Your task to perform on an android device: Play the last video I watched on Youtube Image 0: 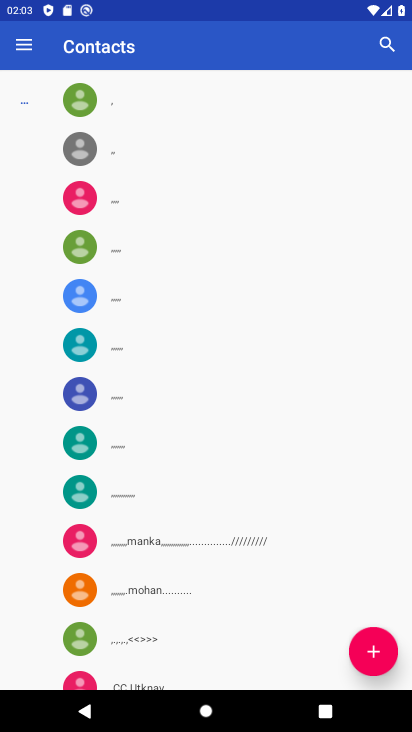
Step 0: press home button
Your task to perform on an android device: Play the last video I watched on Youtube Image 1: 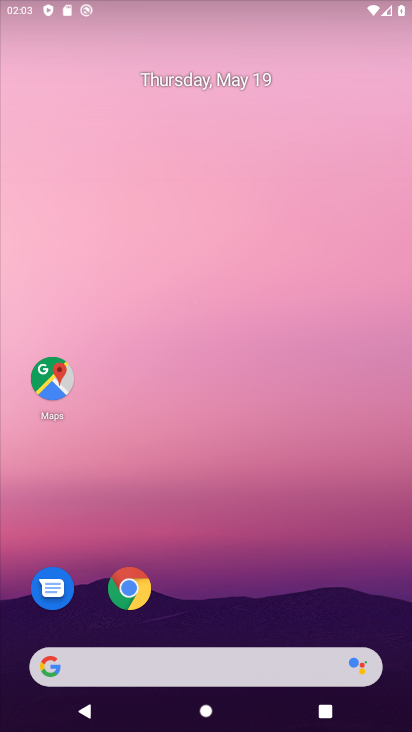
Step 1: drag from (267, 516) to (314, 133)
Your task to perform on an android device: Play the last video I watched on Youtube Image 2: 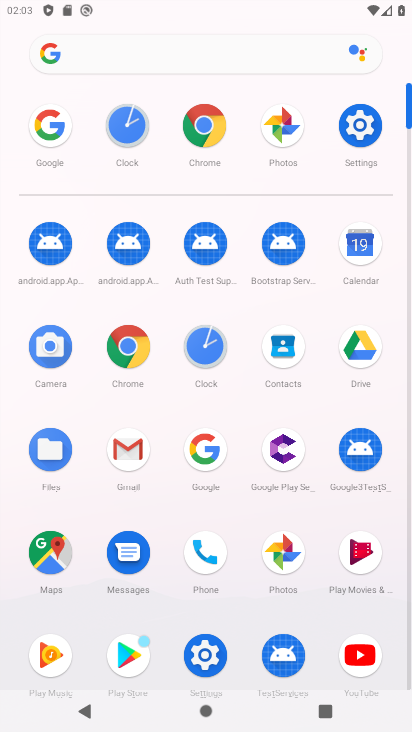
Step 2: click (362, 652)
Your task to perform on an android device: Play the last video I watched on Youtube Image 3: 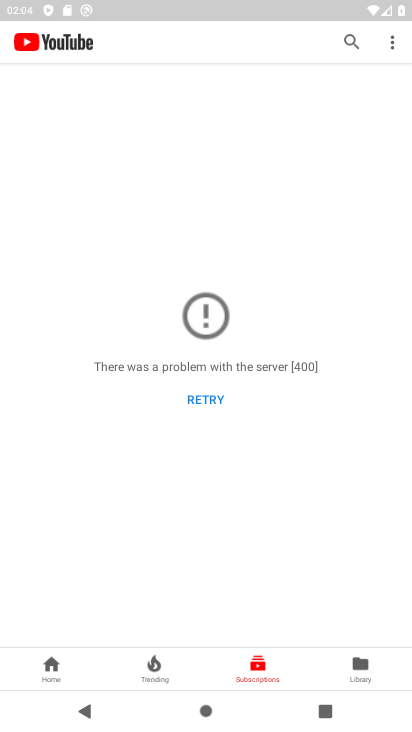
Step 3: click (351, 39)
Your task to perform on an android device: Play the last video I watched on Youtube Image 4: 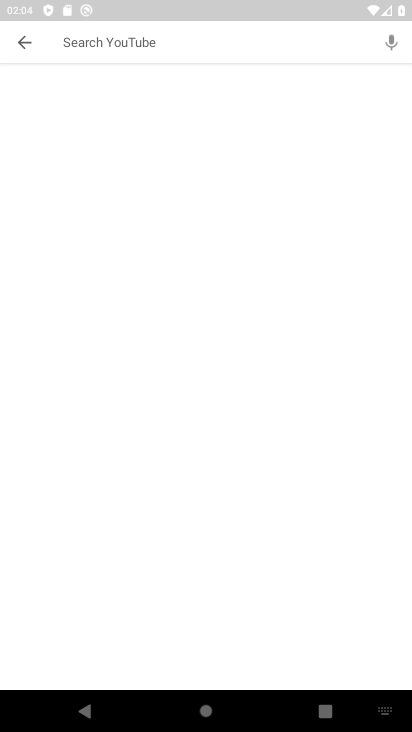
Step 4: task complete